Your task to perform on an android device: Open internet settings Image 0: 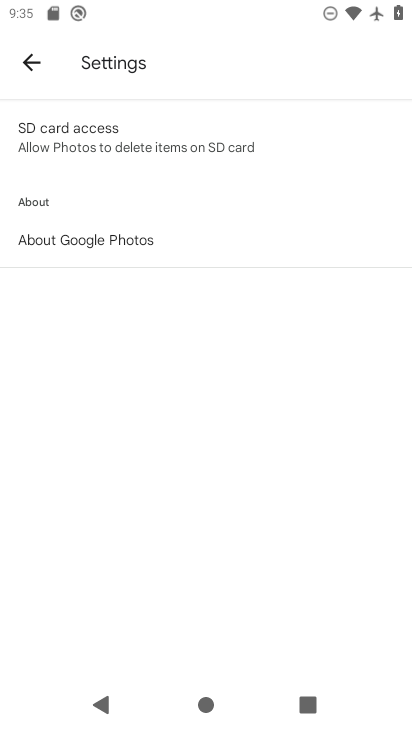
Step 0: press home button
Your task to perform on an android device: Open internet settings Image 1: 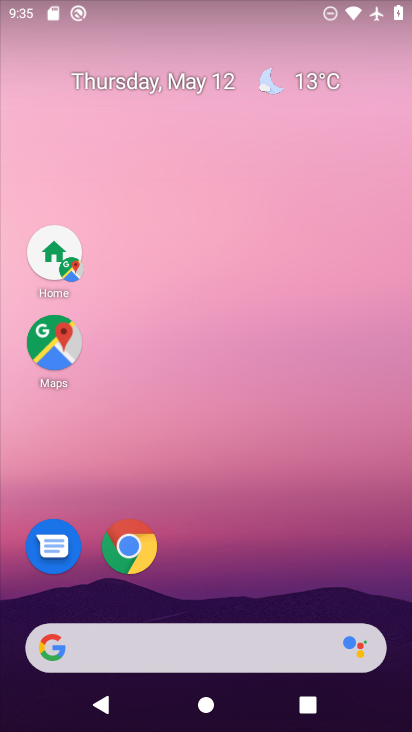
Step 1: drag from (167, 654) to (278, 97)
Your task to perform on an android device: Open internet settings Image 2: 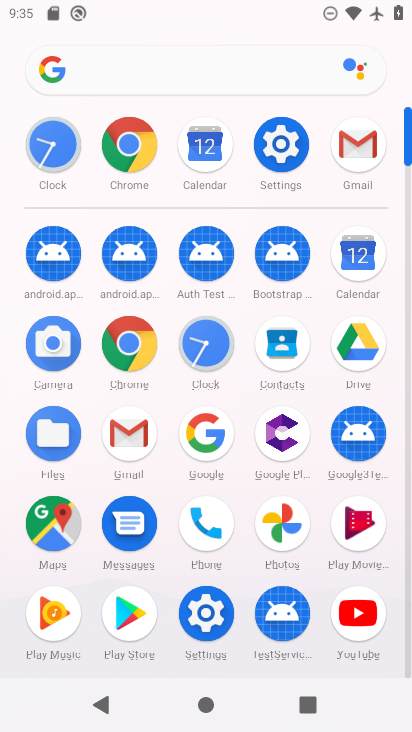
Step 2: click (280, 149)
Your task to perform on an android device: Open internet settings Image 3: 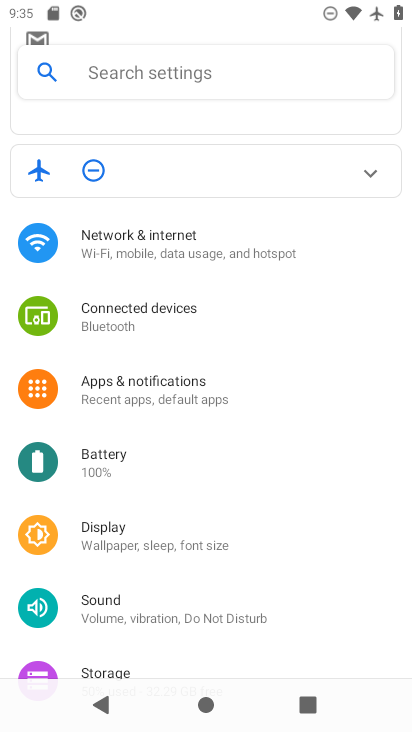
Step 3: click (152, 236)
Your task to perform on an android device: Open internet settings Image 4: 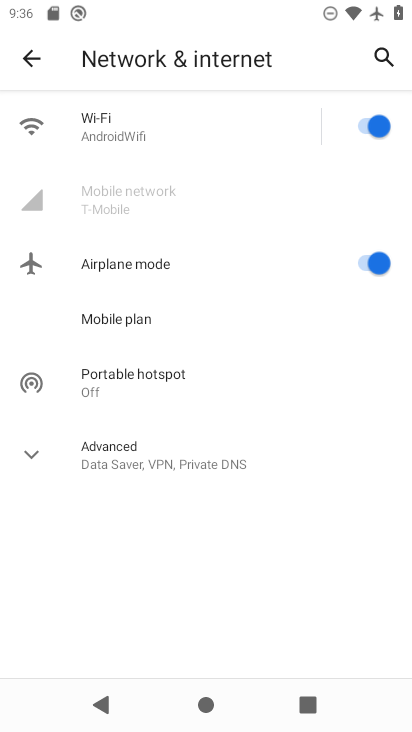
Step 4: task complete